Your task to perform on an android device: Show me popular videos on Youtube Image 0: 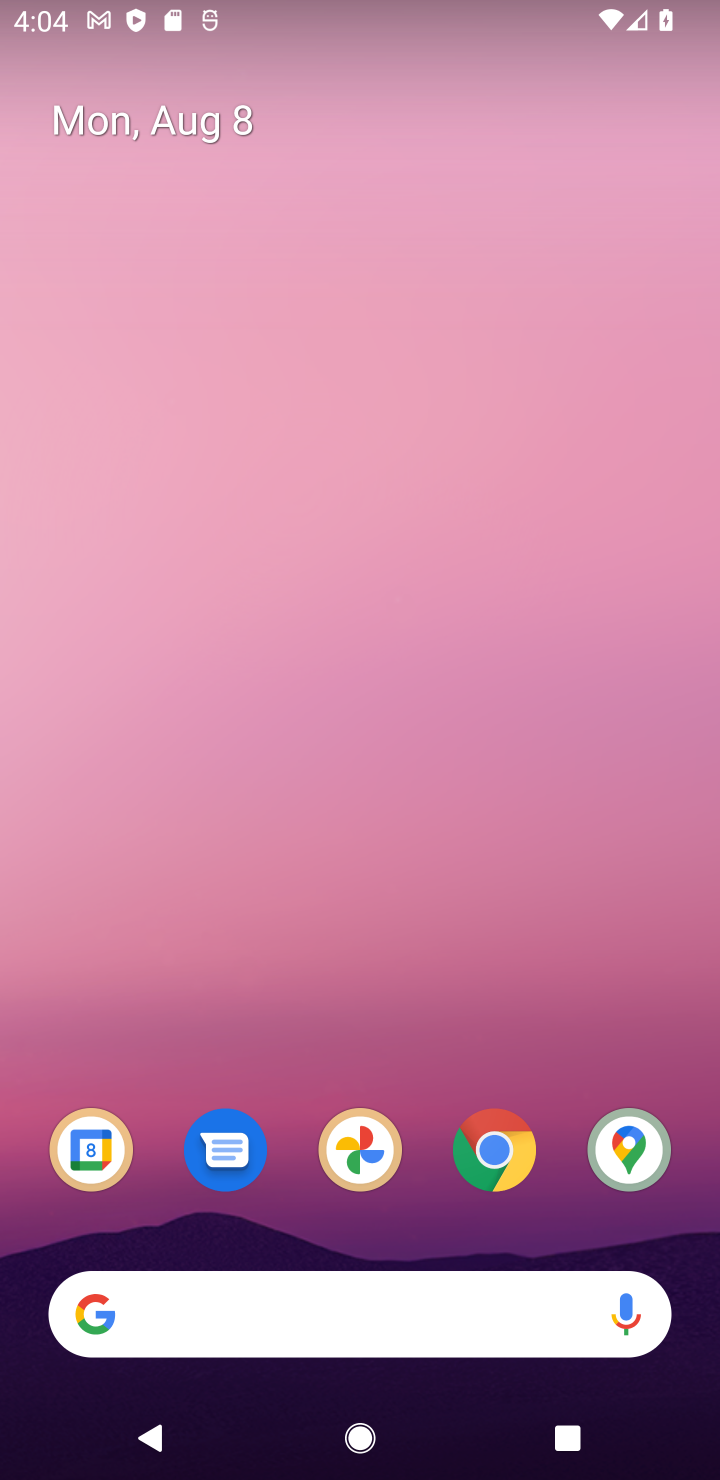
Step 0: drag from (569, 1230) to (374, 311)
Your task to perform on an android device: Show me popular videos on Youtube Image 1: 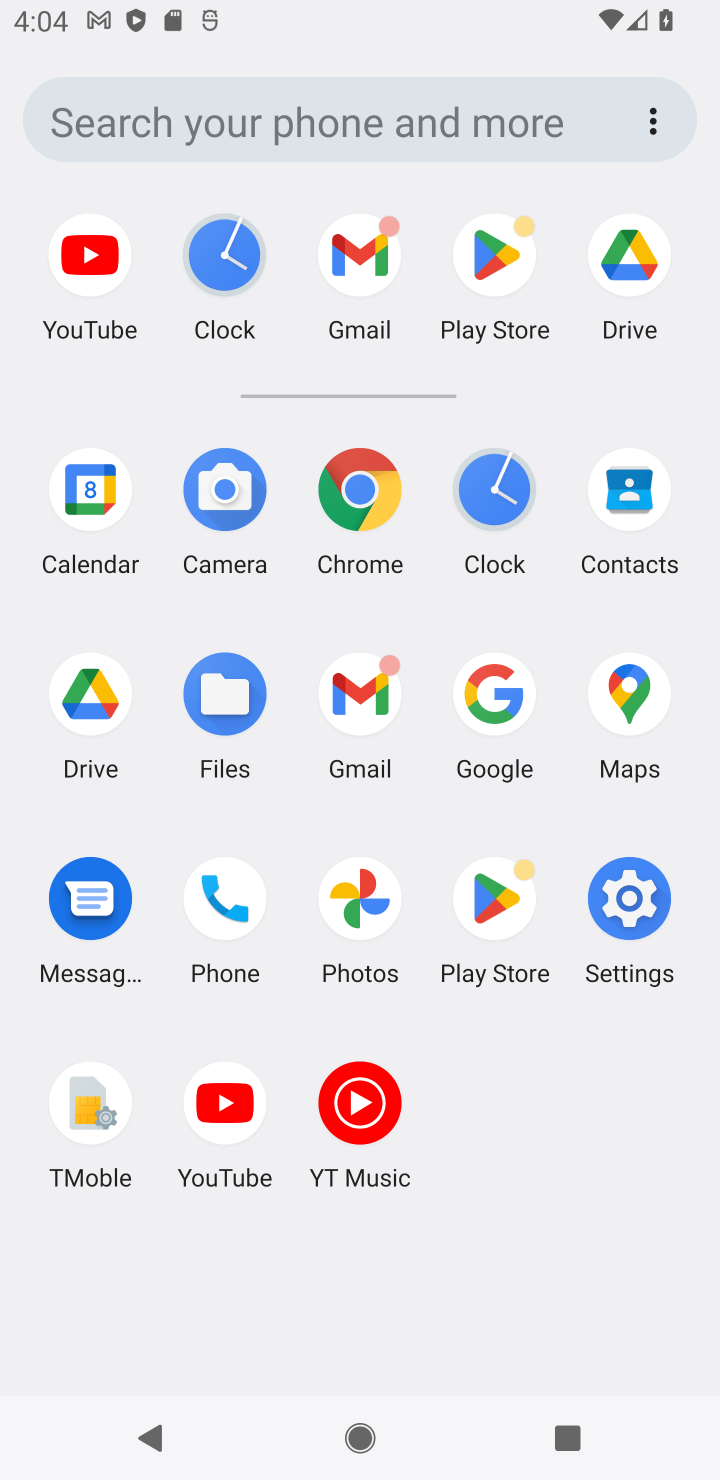
Step 1: click (244, 1150)
Your task to perform on an android device: Show me popular videos on Youtube Image 2: 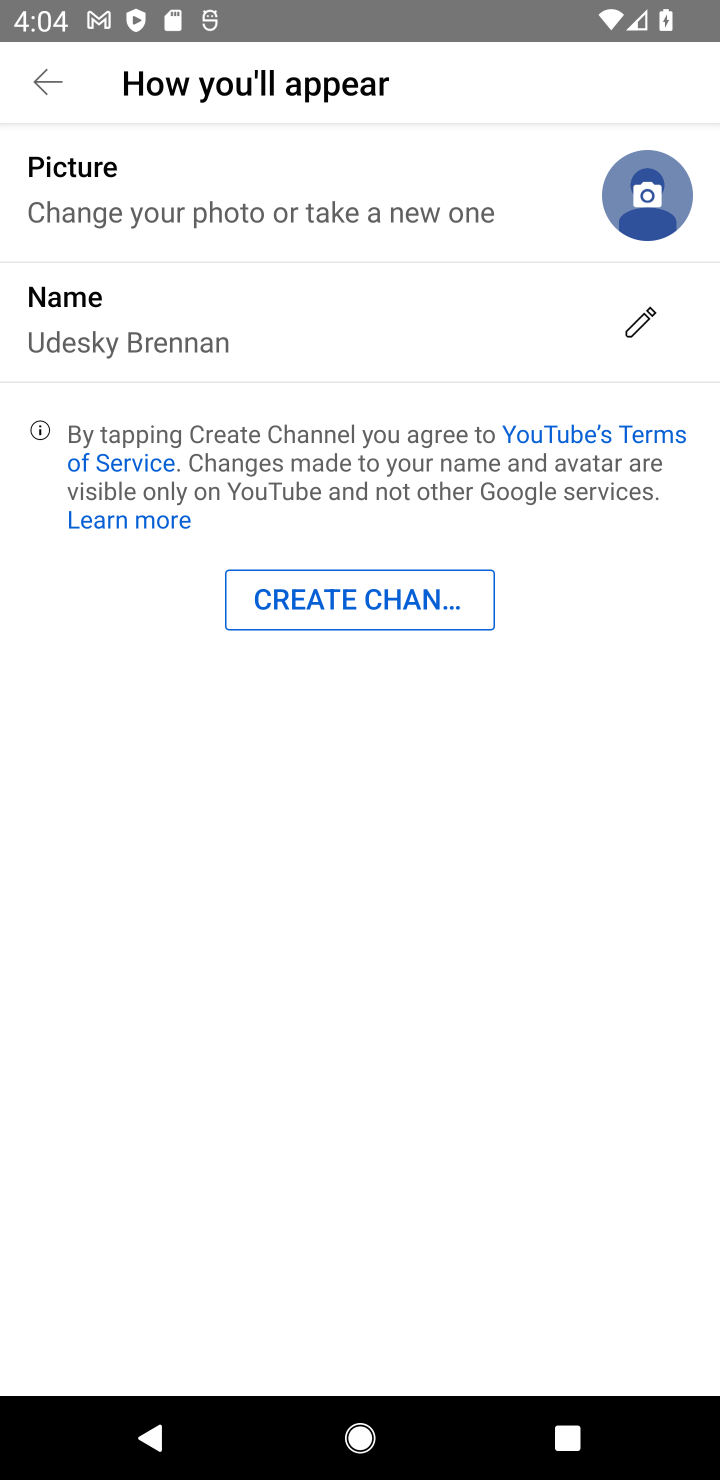
Step 2: task complete